Your task to perform on an android device: open a new tab in the chrome app Image 0: 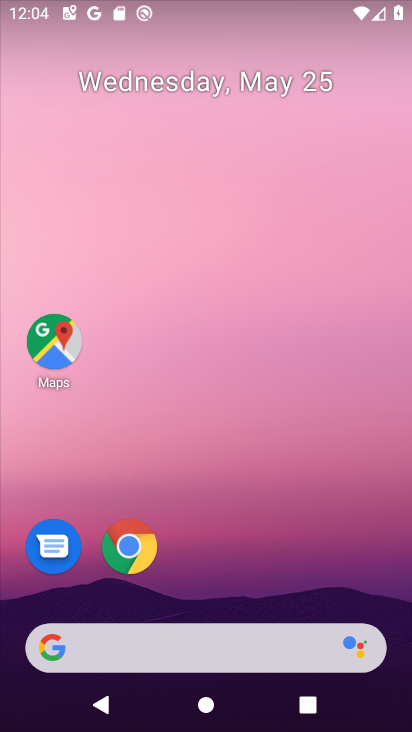
Step 0: click (133, 542)
Your task to perform on an android device: open a new tab in the chrome app Image 1: 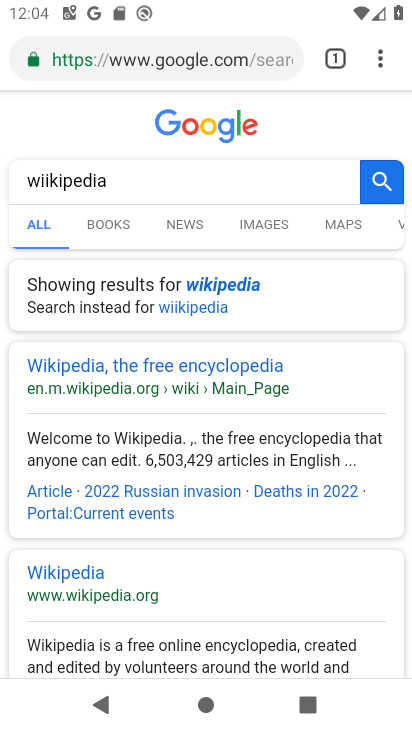
Step 1: click (383, 59)
Your task to perform on an android device: open a new tab in the chrome app Image 2: 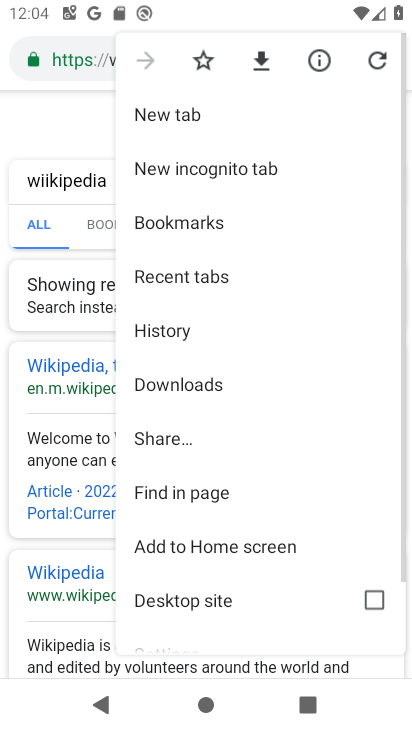
Step 2: click (201, 104)
Your task to perform on an android device: open a new tab in the chrome app Image 3: 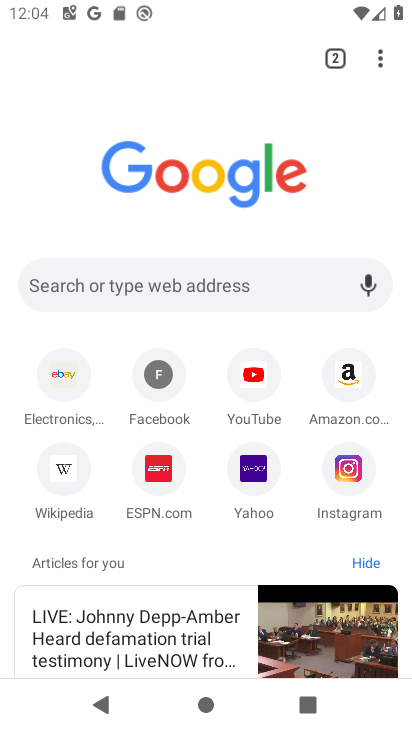
Step 3: task complete